Your task to perform on an android device: toggle sleep mode Image 0: 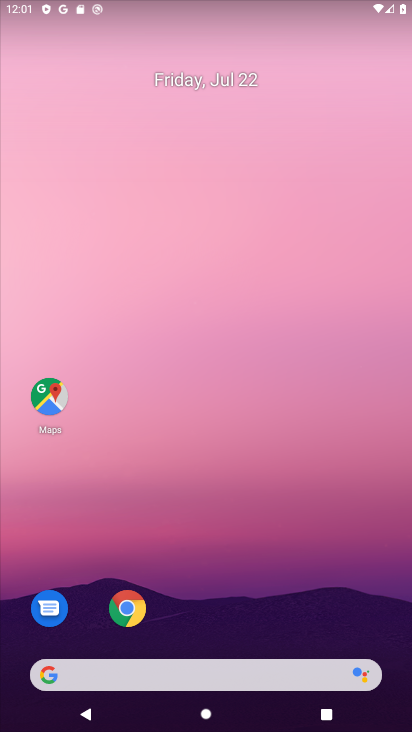
Step 0: drag from (223, 567) to (191, 10)
Your task to perform on an android device: toggle sleep mode Image 1: 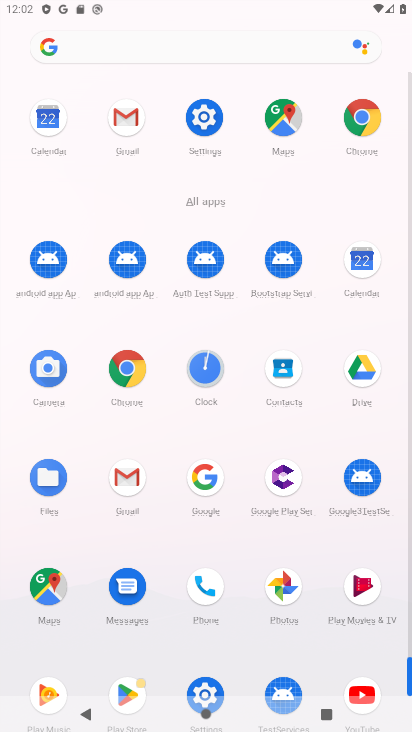
Step 1: click (203, 112)
Your task to perform on an android device: toggle sleep mode Image 2: 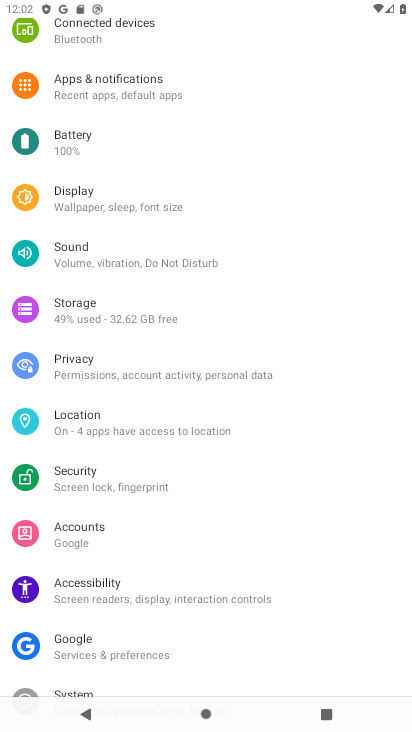
Step 2: click (109, 194)
Your task to perform on an android device: toggle sleep mode Image 3: 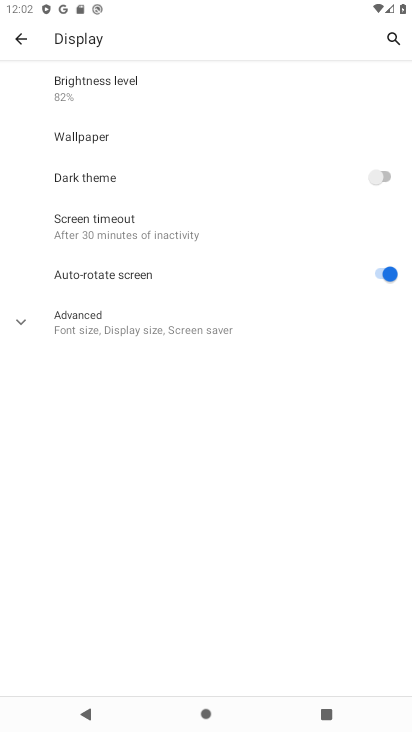
Step 3: click (18, 317)
Your task to perform on an android device: toggle sleep mode Image 4: 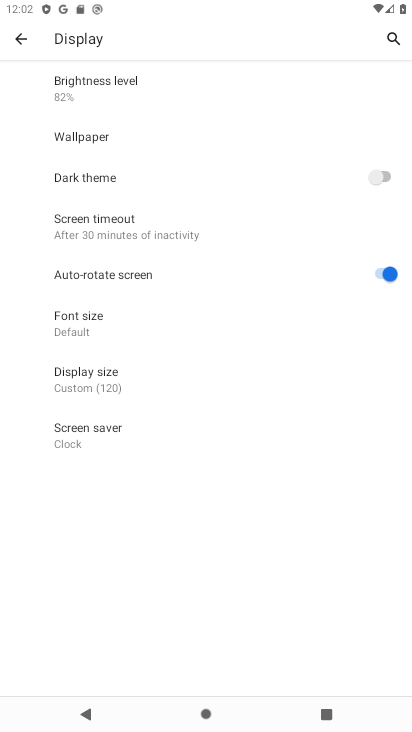
Step 4: task complete